Your task to perform on an android device: Go to settings Image 0: 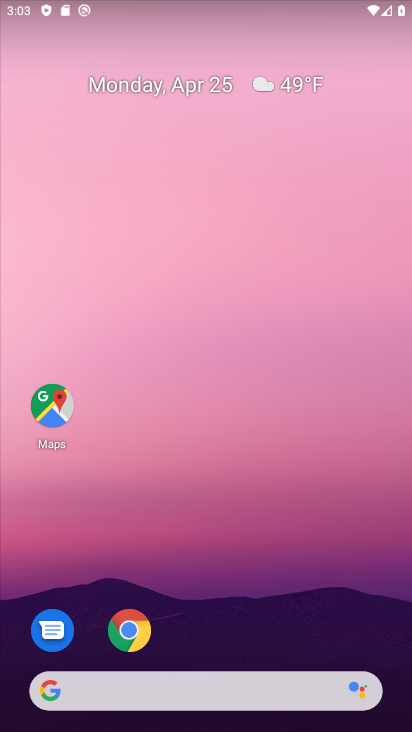
Step 0: drag from (299, 550) to (272, 15)
Your task to perform on an android device: Go to settings Image 1: 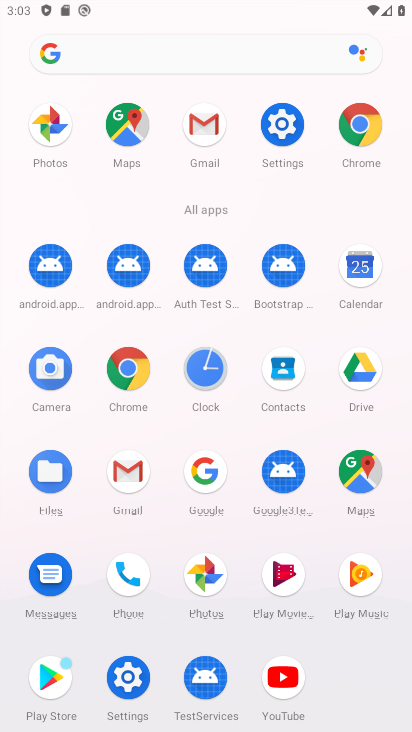
Step 1: click (279, 116)
Your task to perform on an android device: Go to settings Image 2: 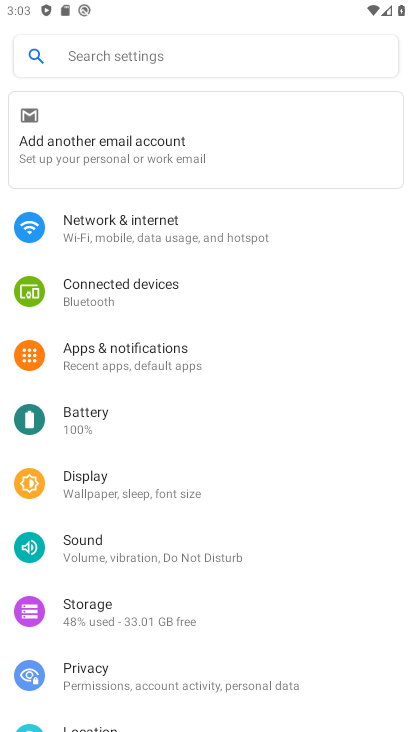
Step 2: task complete